Your task to perform on an android device: Search for seafood restaurants on Google Maps Image 0: 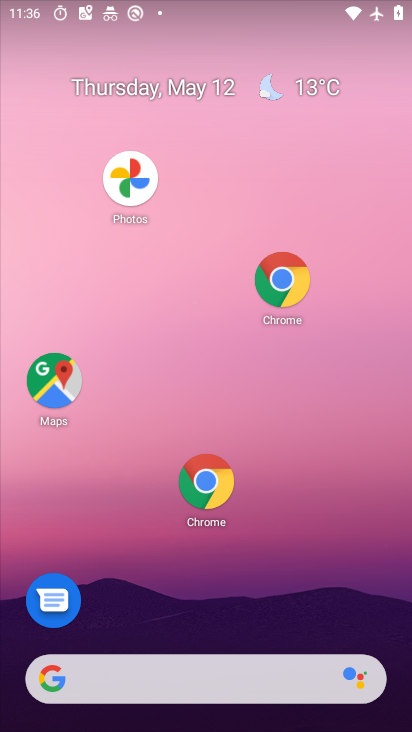
Step 0: drag from (382, 615) to (207, 206)
Your task to perform on an android device: Search for seafood restaurants on Google Maps Image 1: 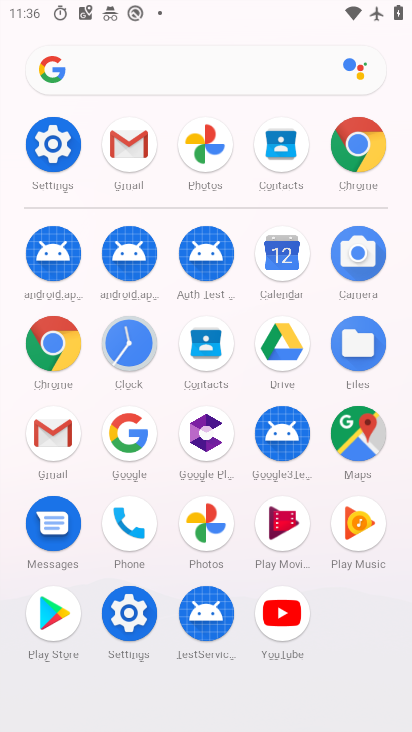
Step 1: click (362, 432)
Your task to perform on an android device: Search for seafood restaurants on Google Maps Image 2: 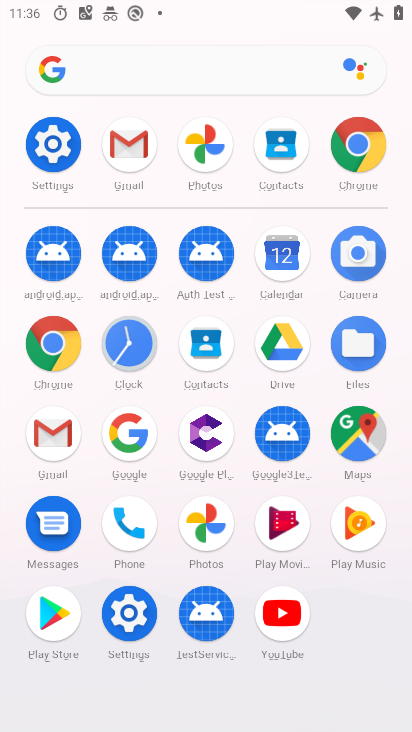
Step 2: click (362, 432)
Your task to perform on an android device: Search for seafood restaurants on Google Maps Image 3: 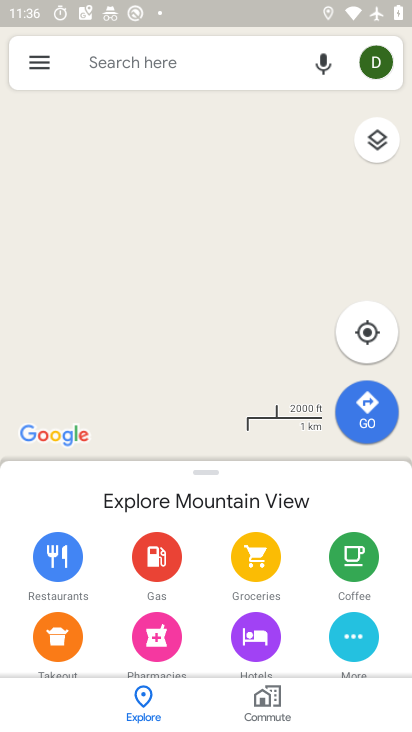
Step 3: click (96, 53)
Your task to perform on an android device: Search for seafood restaurants on Google Maps Image 4: 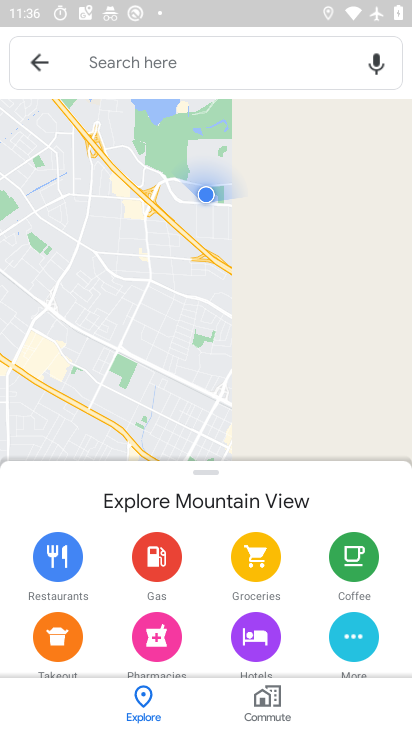
Step 4: click (106, 64)
Your task to perform on an android device: Search for seafood restaurants on Google Maps Image 5: 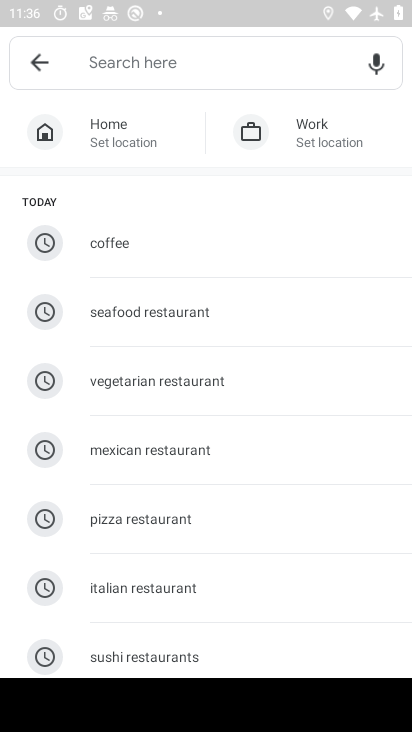
Step 5: click (114, 308)
Your task to perform on an android device: Search for seafood restaurants on Google Maps Image 6: 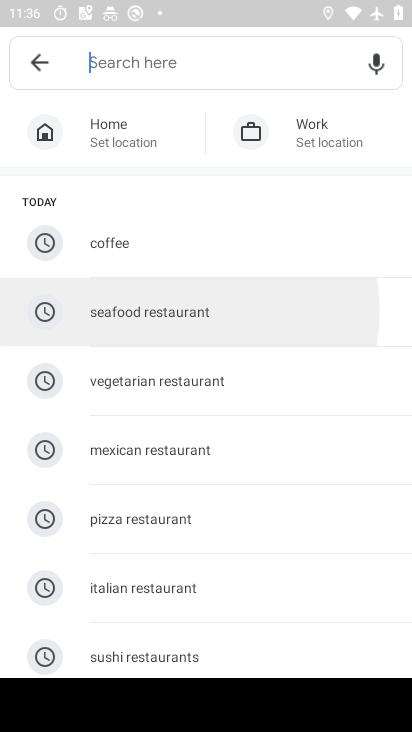
Step 6: click (115, 308)
Your task to perform on an android device: Search for seafood restaurants on Google Maps Image 7: 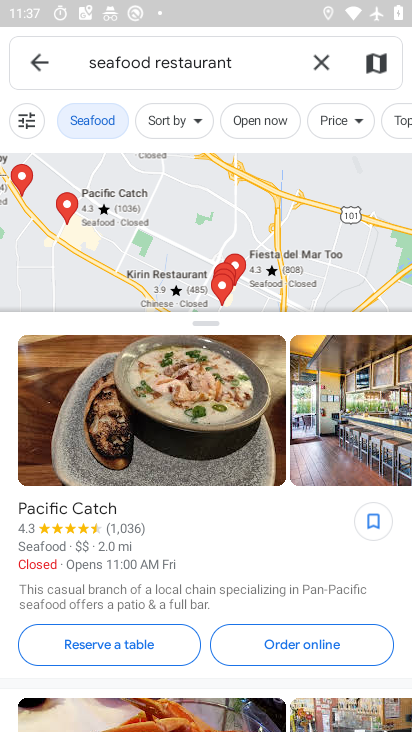
Step 7: task complete